Your task to perform on an android device: Open settings Image 0: 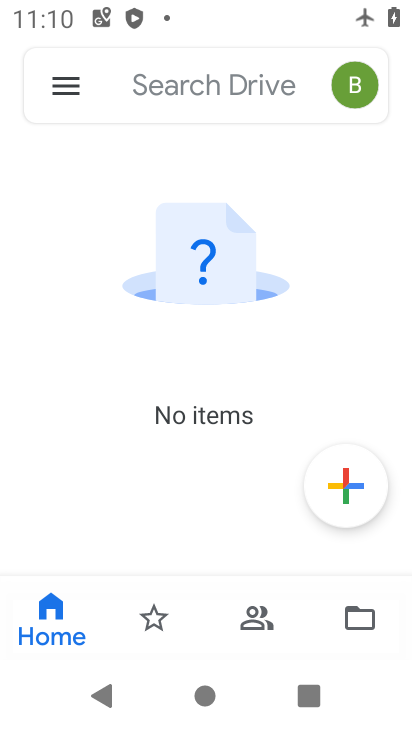
Step 0: press home button
Your task to perform on an android device: Open settings Image 1: 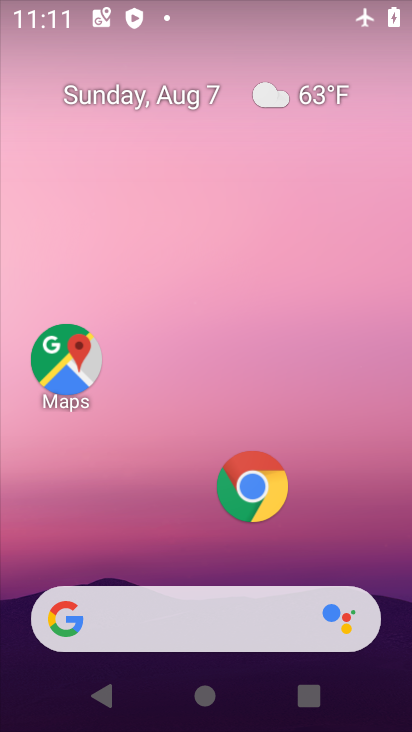
Step 1: drag from (271, 703) to (252, 36)
Your task to perform on an android device: Open settings Image 2: 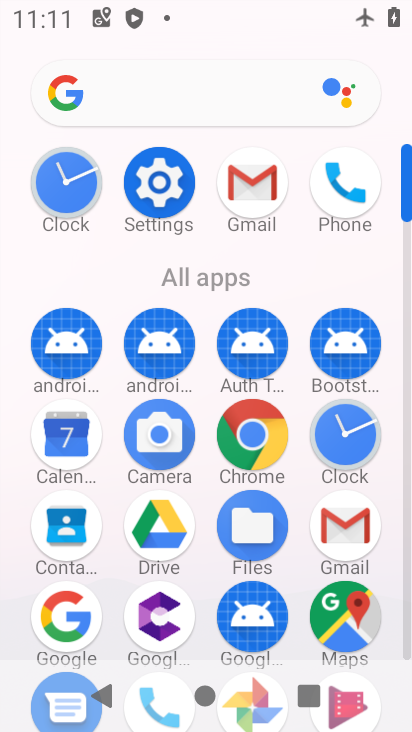
Step 2: click (135, 215)
Your task to perform on an android device: Open settings Image 3: 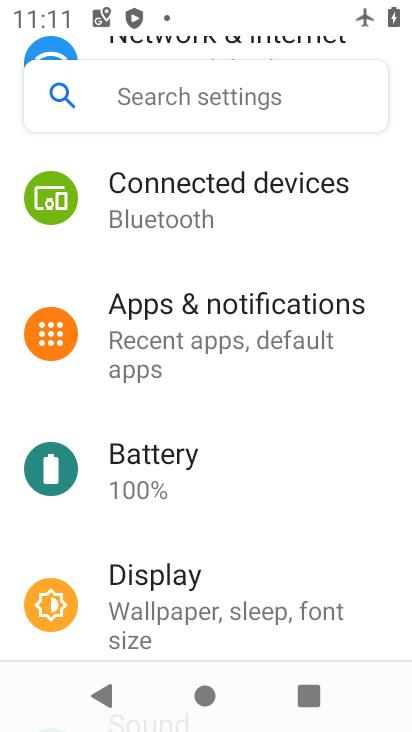
Step 3: task complete